Your task to perform on an android device: Open settings Image 0: 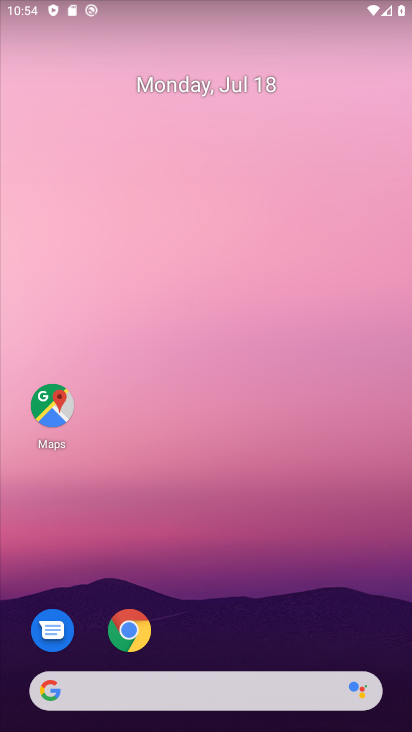
Step 0: drag from (252, 623) to (257, 158)
Your task to perform on an android device: Open settings Image 1: 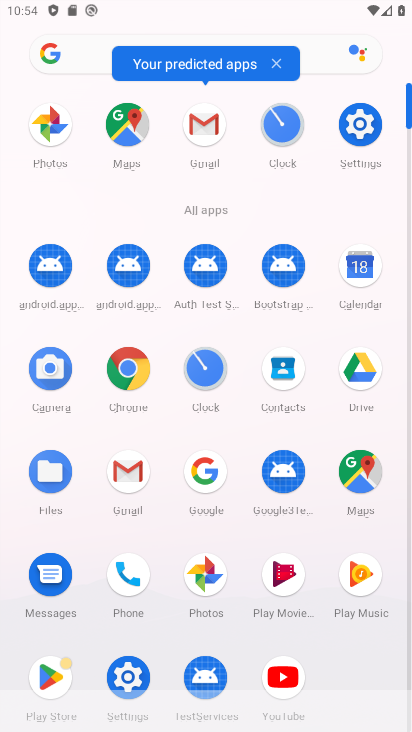
Step 1: click (361, 131)
Your task to perform on an android device: Open settings Image 2: 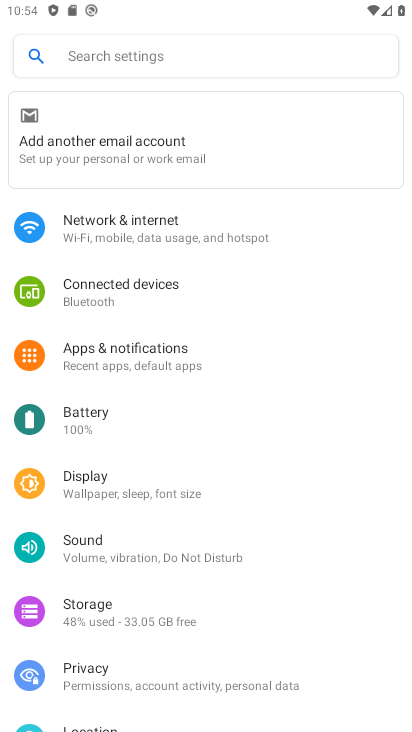
Step 2: task complete